Your task to perform on an android device: turn smart compose on in the gmail app Image 0: 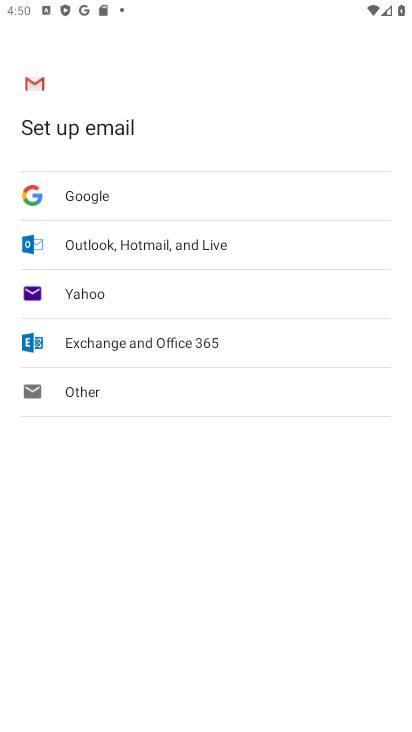
Step 0: press home button
Your task to perform on an android device: turn smart compose on in the gmail app Image 1: 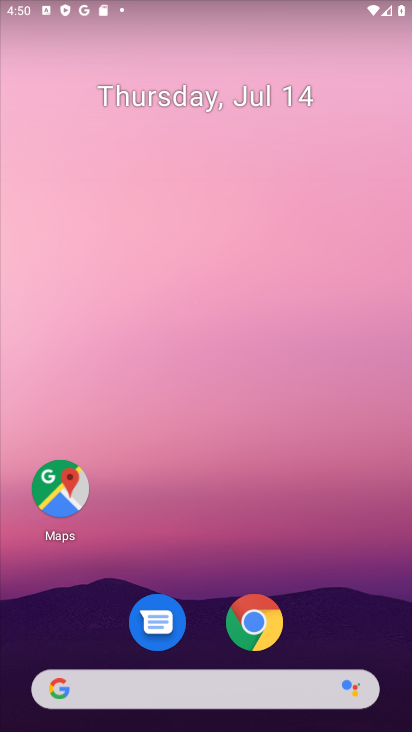
Step 1: drag from (201, 605) to (313, 16)
Your task to perform on an android device: turn smart compose on in the gmail app Image 2: 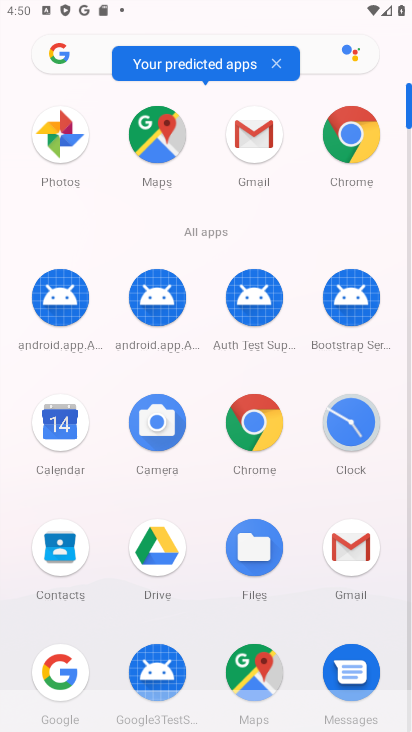
Step 2: click (351, 540)
Your task to perform on an android device: turn smart compose on in the gmail app Image 3: 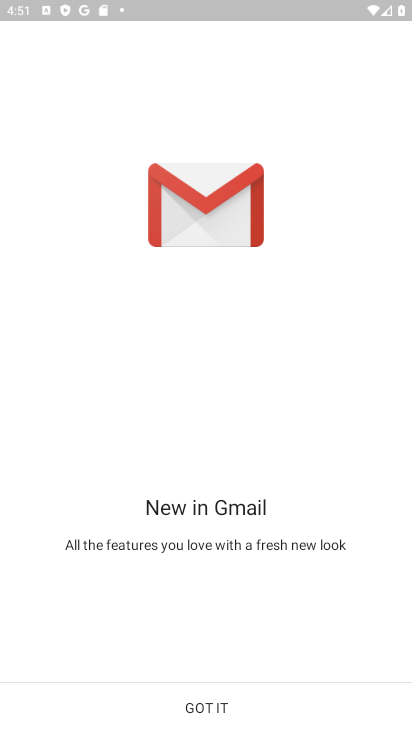
Step 3: click (254, 687)
Your task to perform on an android device: turn smart compose on in the gmail app Image 4: 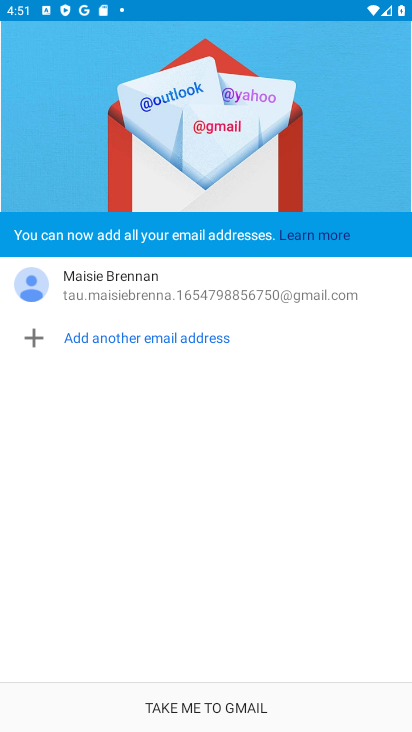
Step 4: click (219, 714)
Your task to perform on an android device: turn smart compose on in the gmail app Image 5: 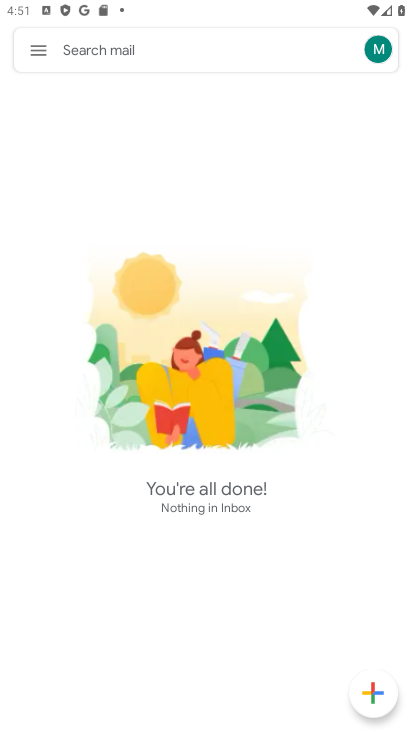
Step 5: click (32, 58)
Your task to perform on an android device: turn smart compose on in the gmail app Image 6: 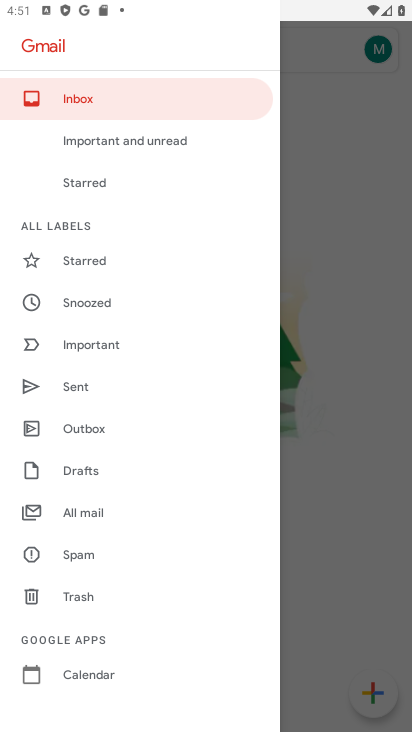
Step 6: drag from (102, 695) to (141, 39)
Your task to perform on an android device: turn smart compose on in the gmail app Image 7: 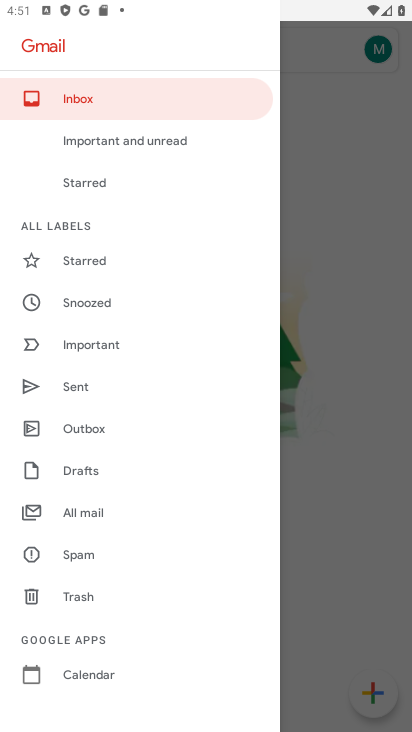
Step 7: drag from (74, 618) to (152, 9)
Your task to perform on an android device: turn smart compose on in the gmail app Image 8: 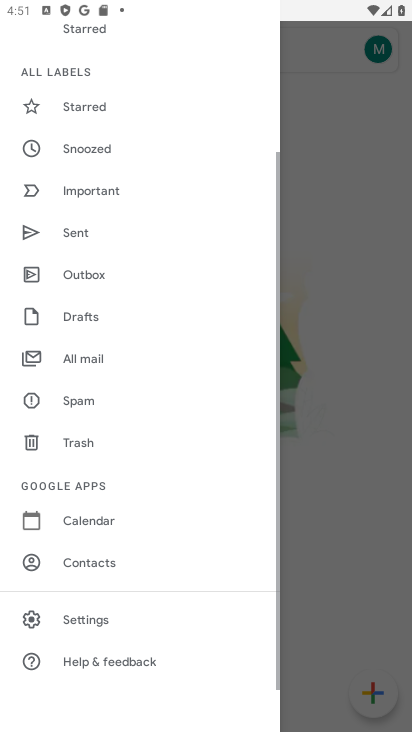
Step 8: drag from (78, 658) to (78, 191)
Your task to perform on an android device: turn smart compose on in the gmail app Image 9: 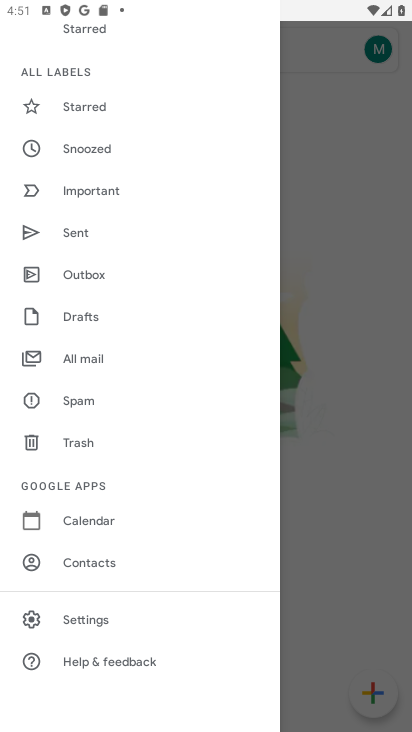
Step 9: click (91, 626)
Your task to perform on an android device: turn smart compose on in the gmail app Image 10: 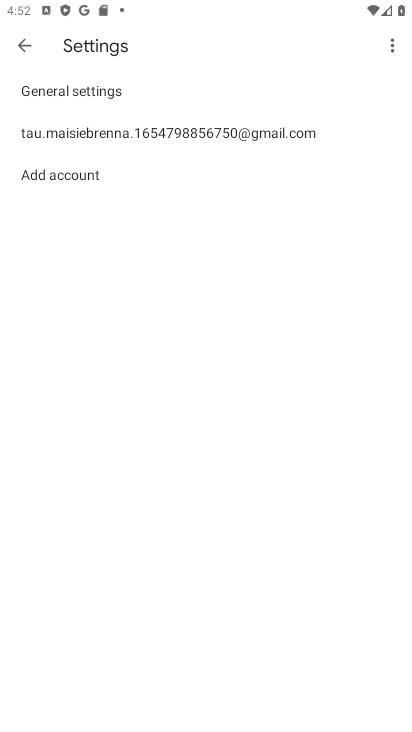
Step 10: click (140, 113)
Your task to perform on an android device: turn smart compose on in the gmail app Image 11: 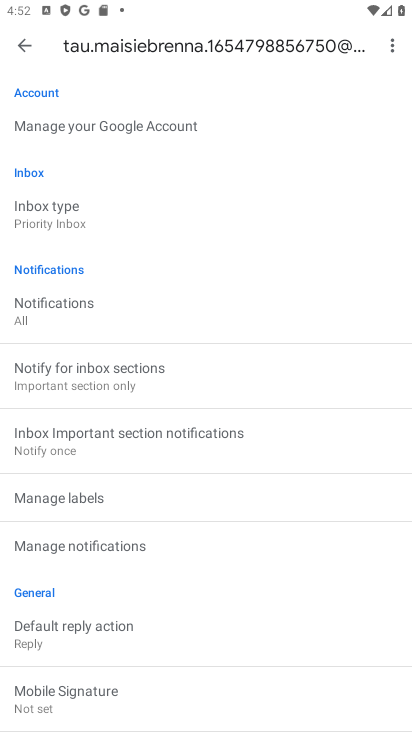
Step 11: task complete